Your task to perform on an android device: What's the weather today? Image 0: 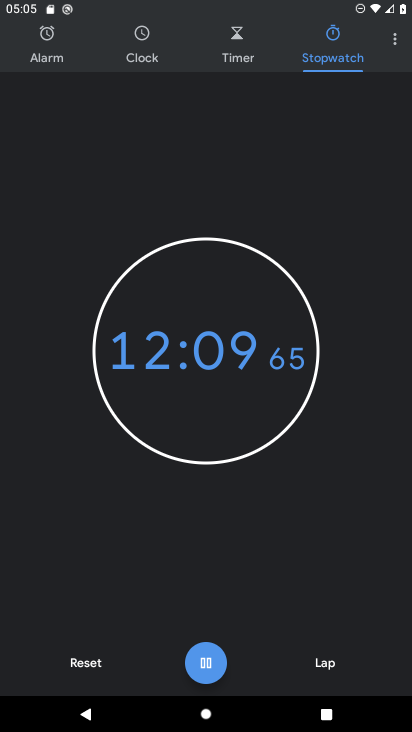
Step 0: press home button
Your task to perform on an android device: What's the weather today? Image 1: 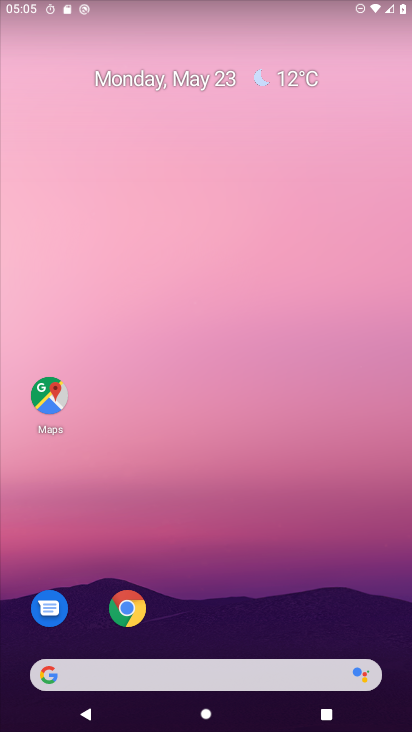
Step 1: click (298, 73)
Your task to perform on an android device: What's the weather today? Image 2: 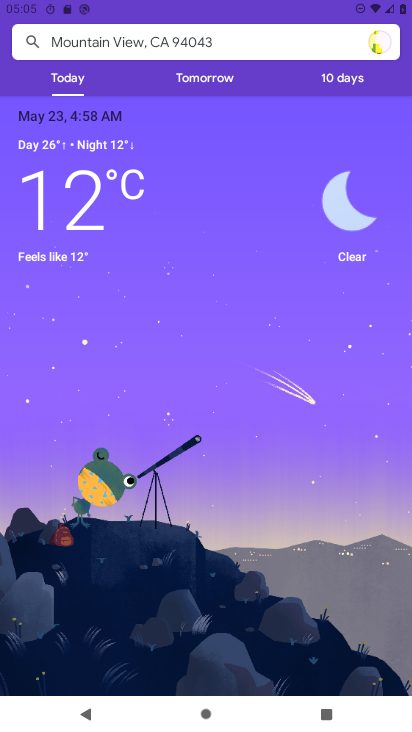
Step 2: task complete